Your task to perform on an android device: What's the weather going to be tomorrow? Image 0: 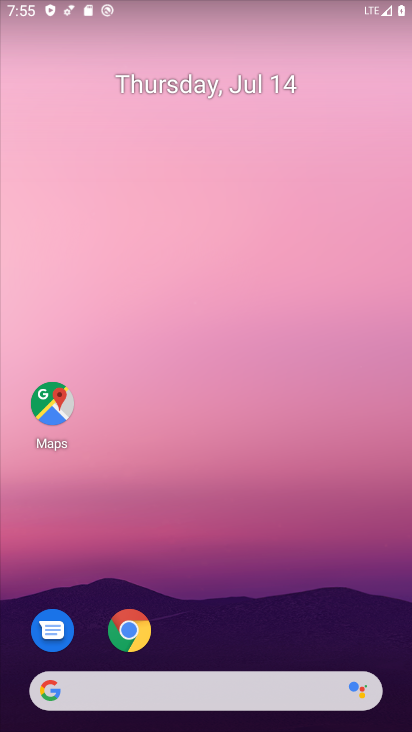
Step 0: drag from (221, 614) to (228, 181)
Your task to perform on an android device: What's the weather going to be tomorrow? Image 1: 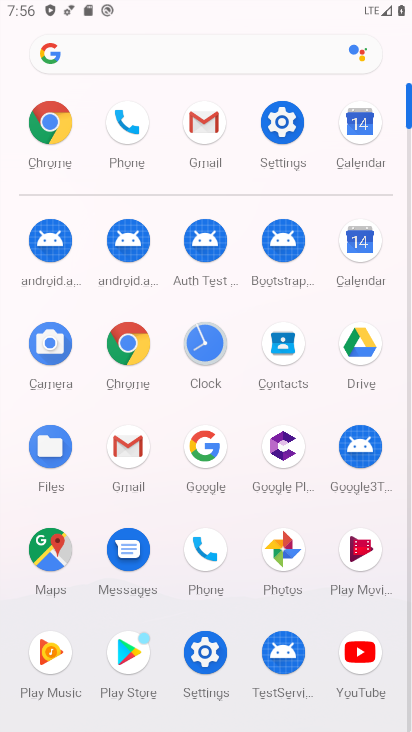
Step 1: click (52, 122)
Your task to perform on an android device: What's the weather going to be tomorrow? Image 2: 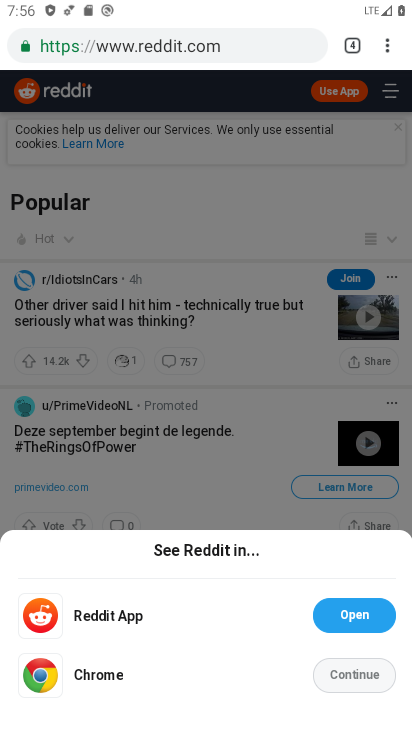
Step 2: click (252, 221)
Your task to perform on an android device: What's the weather going to be tomorrow? Image 3: 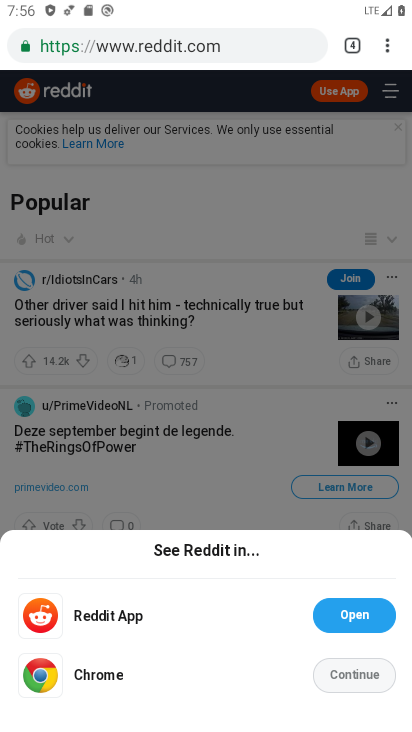
Step 3: click (388, 45)
Your task to perform on an android device: What's the weather going to be tomorrow? Image 4: 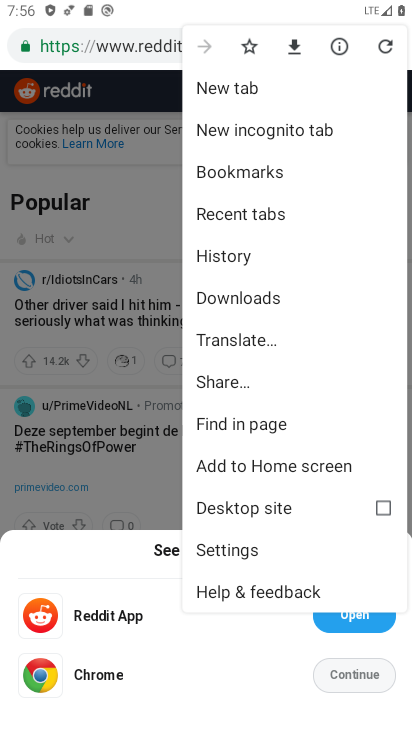
Step 4: click (251, 88)
Your task to perform on an android device: What's the weather going to be tomorrow? Image 5: 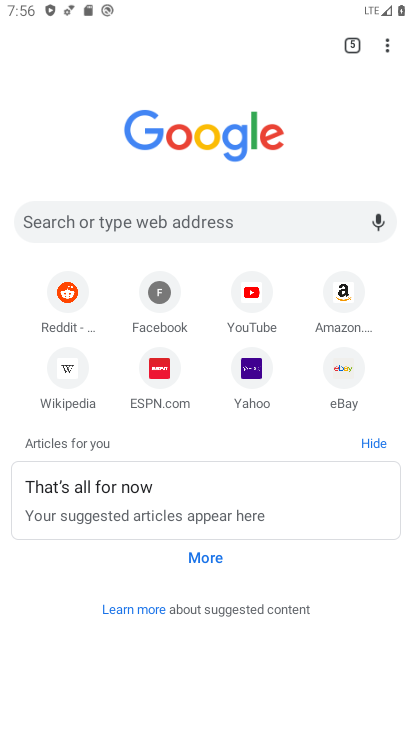
Step 5: click (158, 205)
Your task to perform on an android device: What's the weather going to be tomorrow? Image 6: 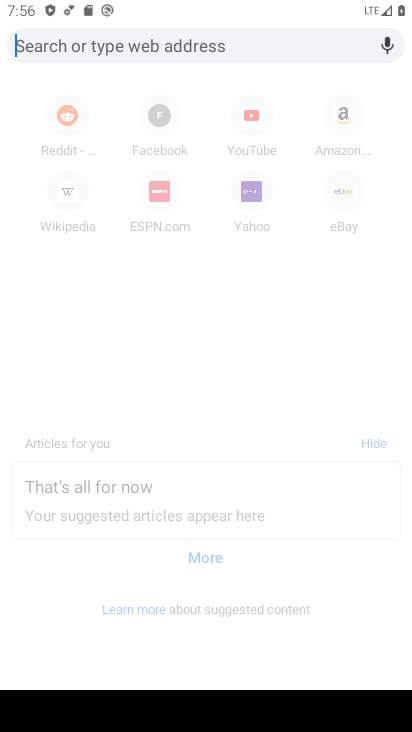
Step 6: type "What's the weather going to be tomorrow "
Your task to perform on an android device: What's the weather going to be tomorrow? Image 7: 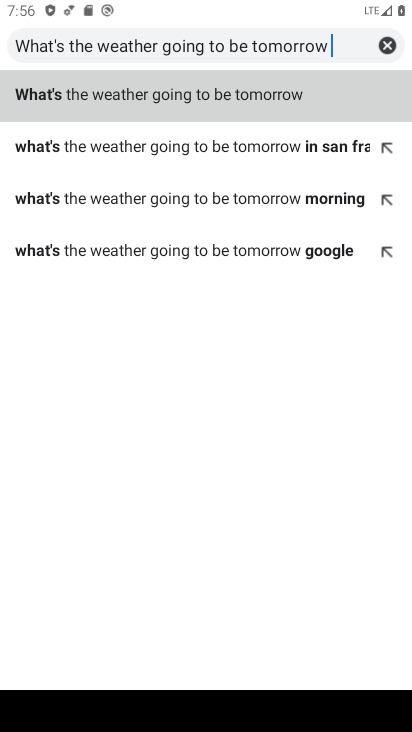
Step 7: click (283, 76)
Your task to perform on an android device: What's the weather going to be tomorrow? Image 8: 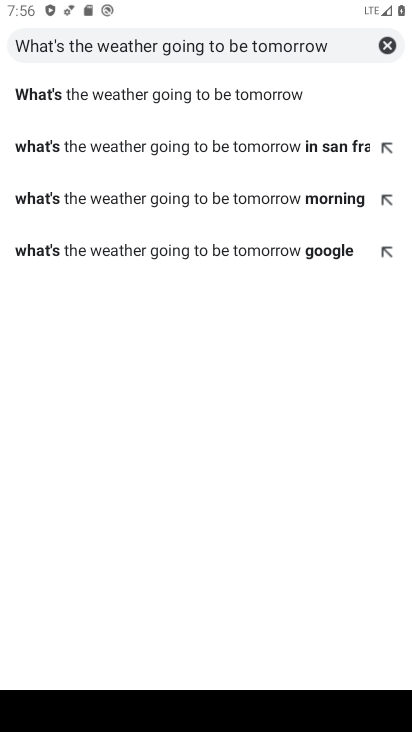
Step 8: click (277, 95)
Your task to perform on an android device: What's the weather going to be tomorrow? Image 9: 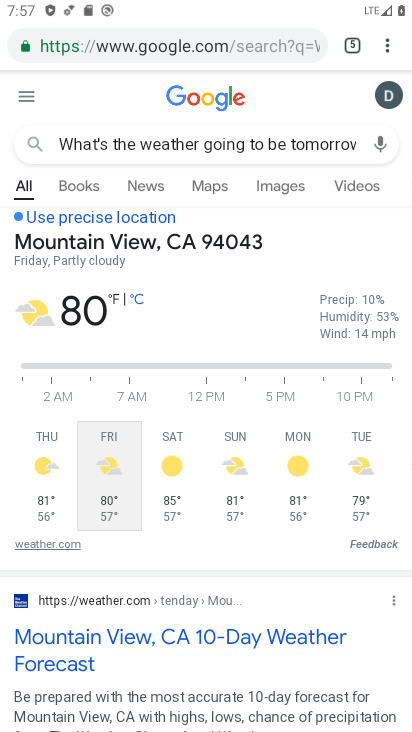
Step 9: task complete